Your task to perform on an android device: Show me popular games on the Play Store Image 0: 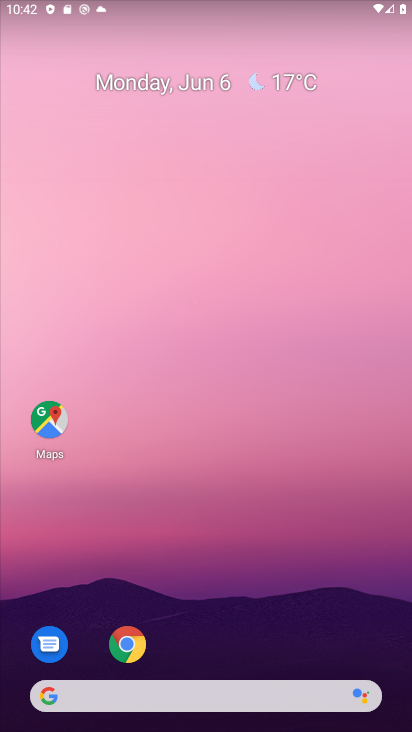
Step 0: press home button
Your task to perform on an android device: Show me popular games on the Play Store Image 1: 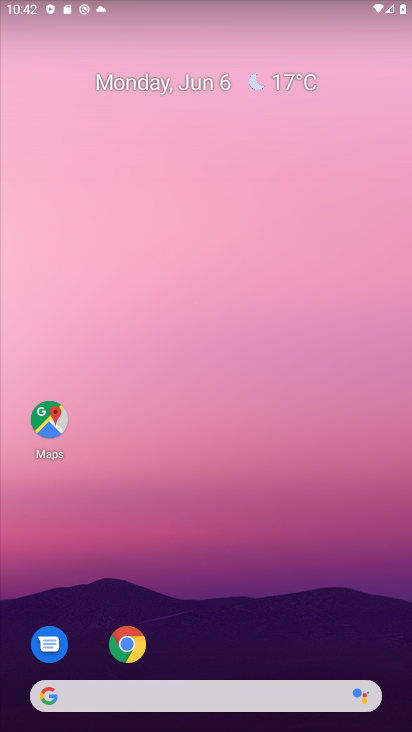
Step 1: drag from (316, 674) to (248, 13)
Your task to perform on an android device: Show me popular games on the Play Store Image 2: 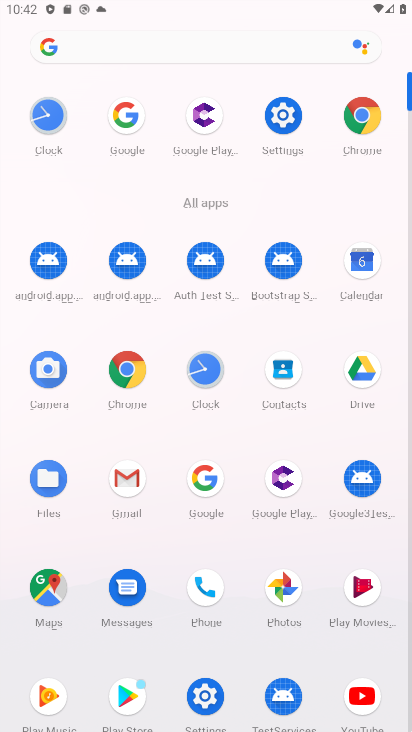
Step 2: click (139, 698)
Your task to perform on an android device: Show me popular games on the Play Store Image 3: 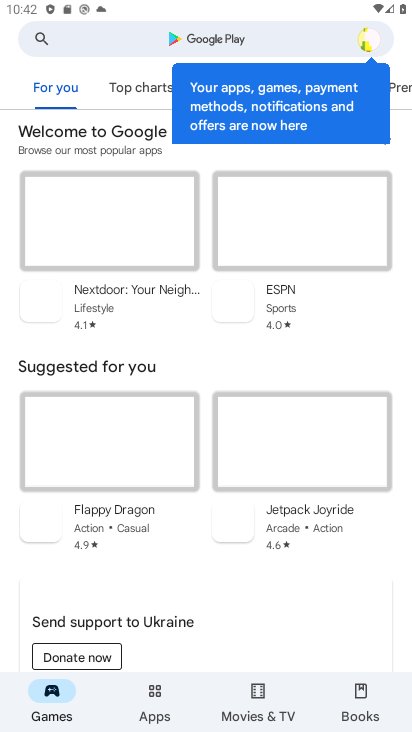
Step 3: click (174, 32)
Your task to perform on an android device: Show me popular games on the Play Store Image 4: 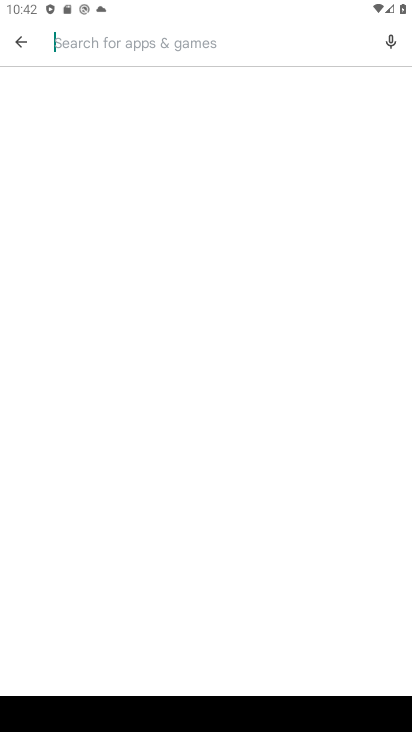
Step 4: type " popular games "
Your task to perform on an android device: Show me popular games on the Play Store Image 5: 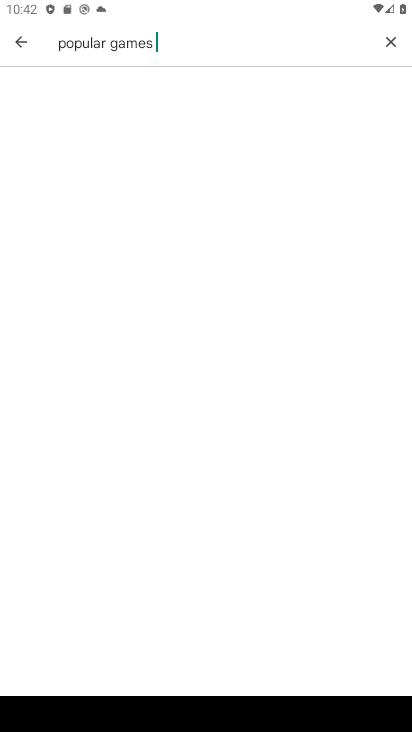
Step 5: type ""
Your task to perform on an android device: Show me popular games on the Play Store Image 6: 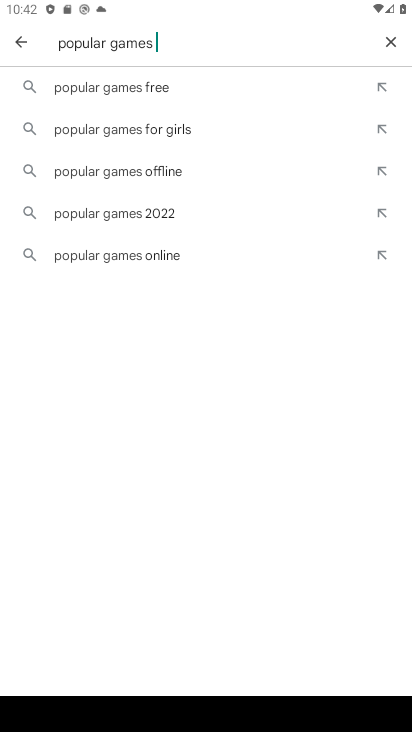
Step 6: click (251, 103)
Your task to perform on an android device: Show me popular games on the Play Store Image 7: 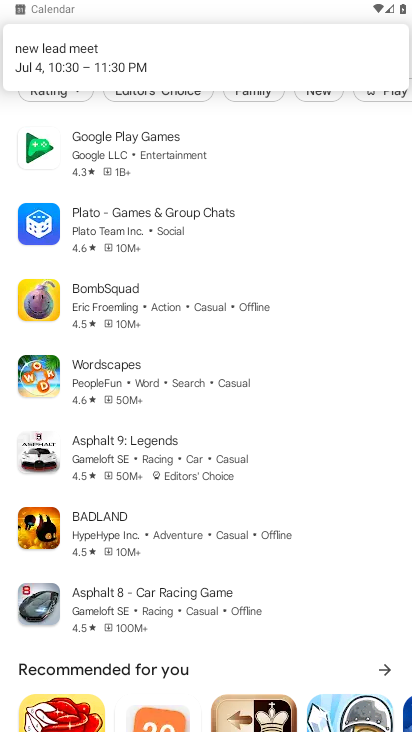
Step 7: task complete